Your task to perform on an android device: Go to network settings Image 0: 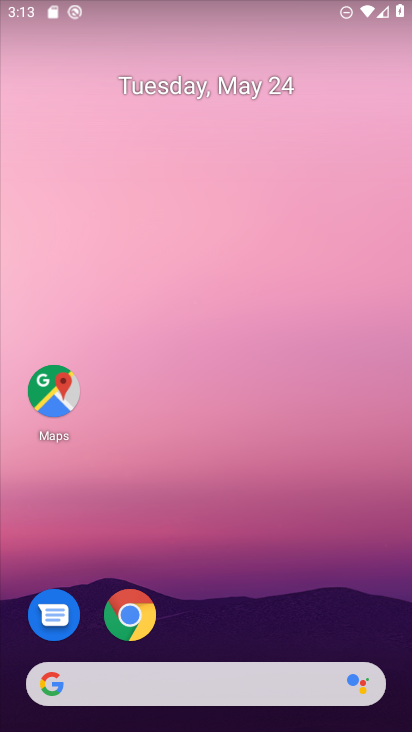
Step 0: drag from (244, 555) to (313, 124)
Your task to perform on an android device: Go to network settings Image 1: 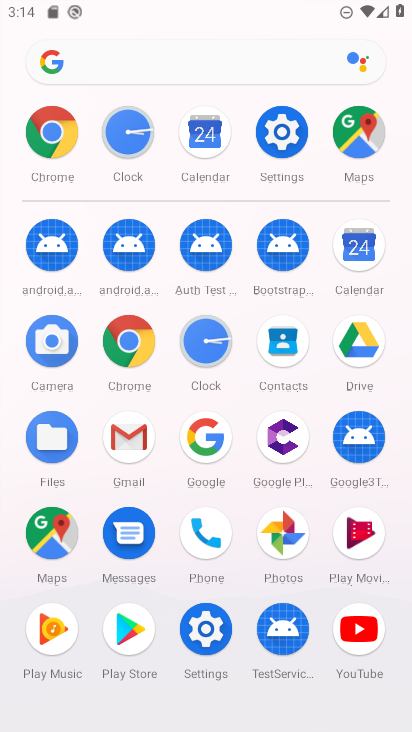
Step 1: click (289, 148)
Your task to perform on an android device: Go to network settings Image 2: 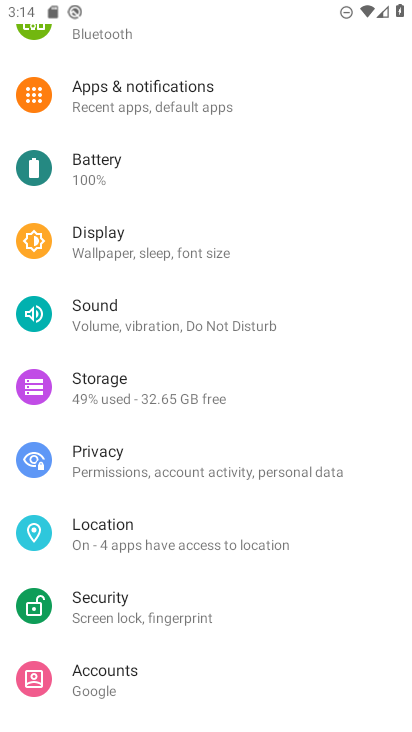
Step 2: drag from (166, 247) to (180, 604)
Your task to perform on an android device: Go to network settings Image 3: 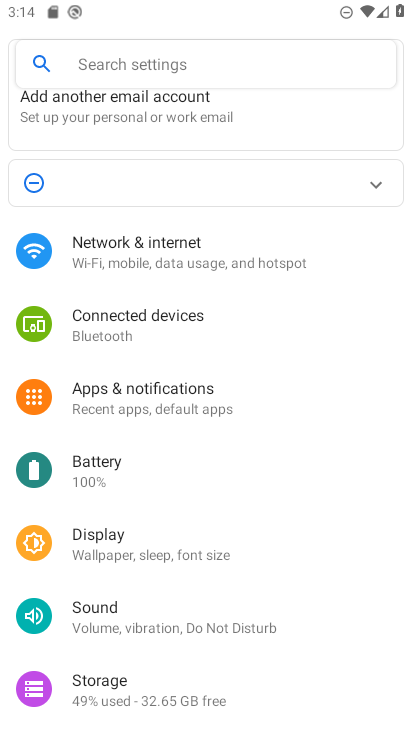
Step 3: click (204, 260)
Your task to perform on an android device: Go to network settings Image 4: 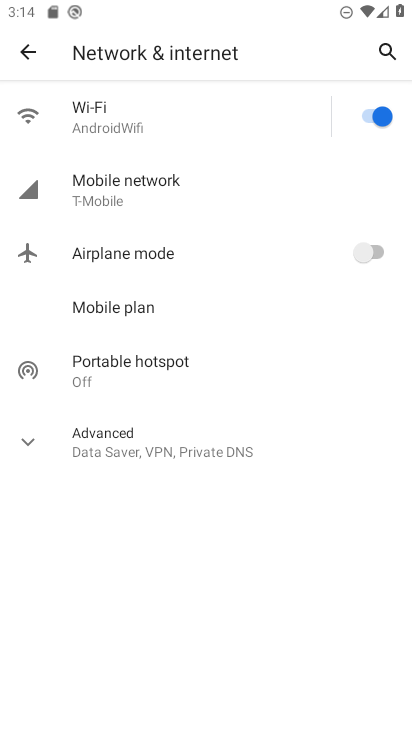
Step 4: click (175, 198)
Your task to perform on an android device: Go to network settings Image 5: 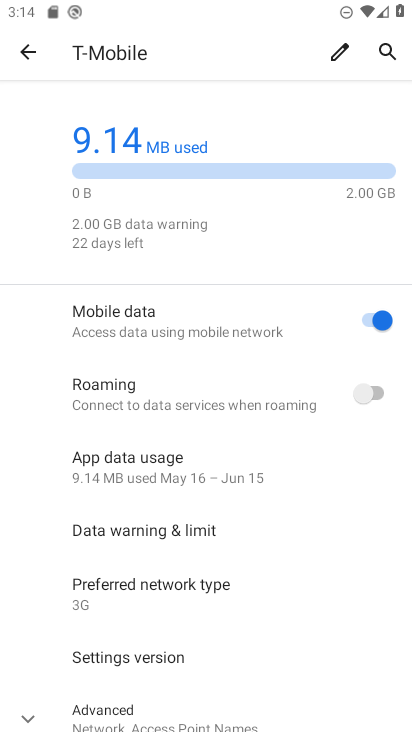
Step 5: task complete